Your task to perform on an android device: open app "Google Calendar" (install if not already installed) Image 0: 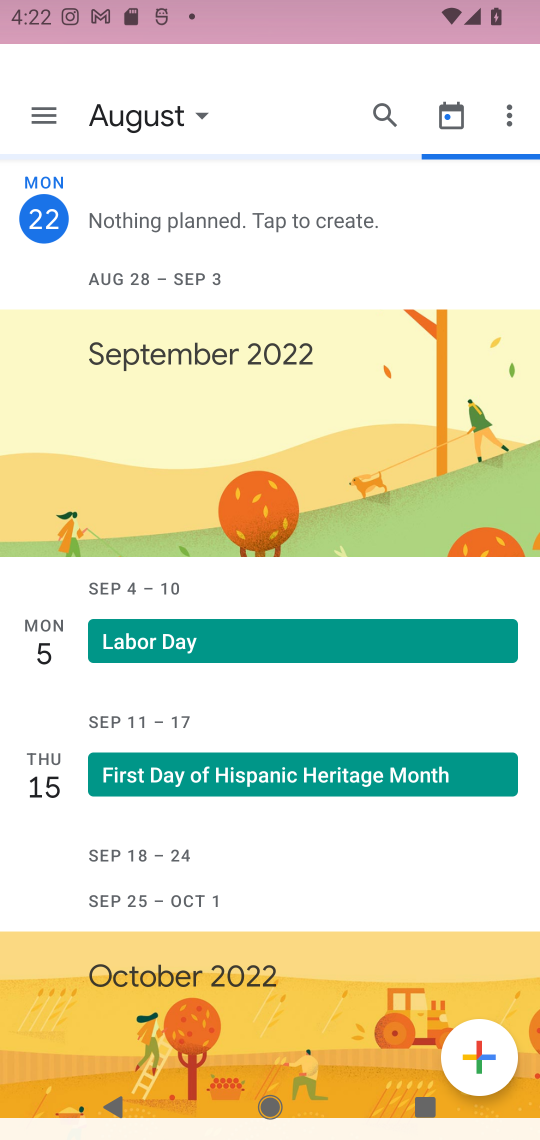
Step 0: press home button
Your task to perform on an android device: open app "Google Calendar" (install if not already installed) Image 1: 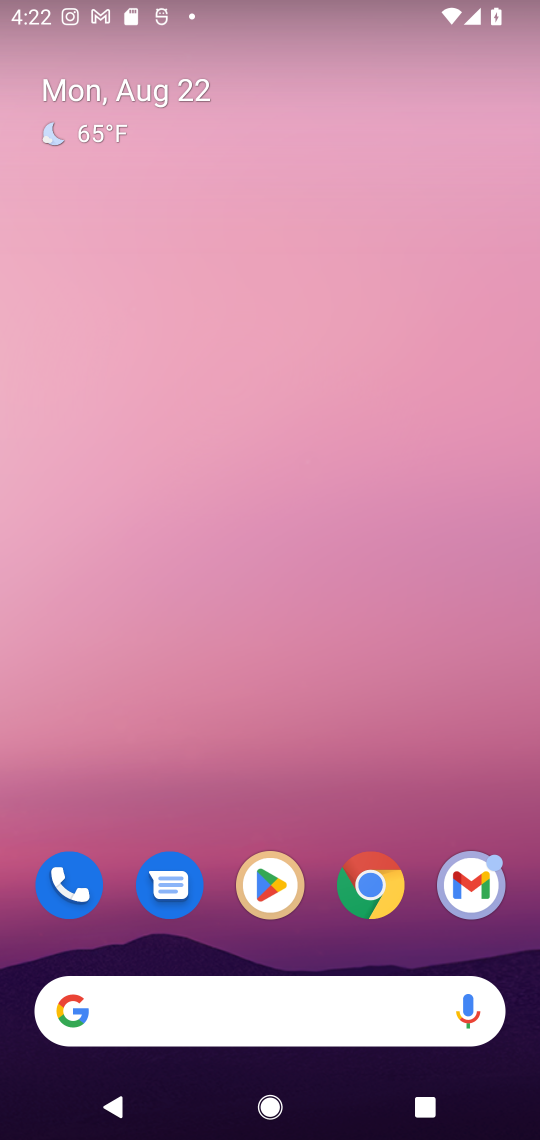
Step 1: click (266, 873)
Your task to perform on an android device: open app "Google Calendar" (install if not already installed) Image 2: 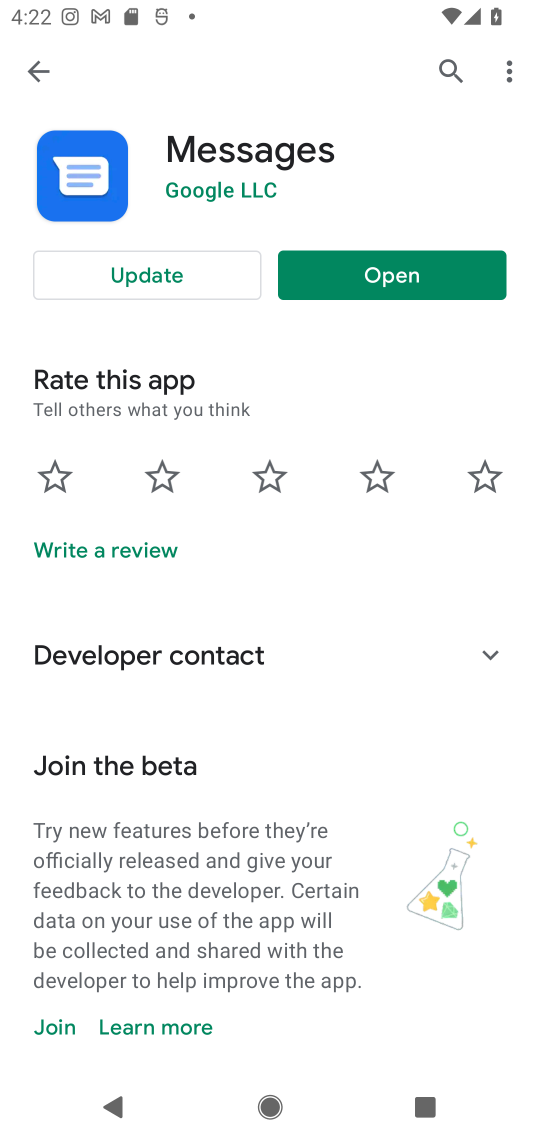
Step 2: click (444, 71)
Your task to perform on an android device: open app "Google Calendar" (install if not already installed) Image 3: 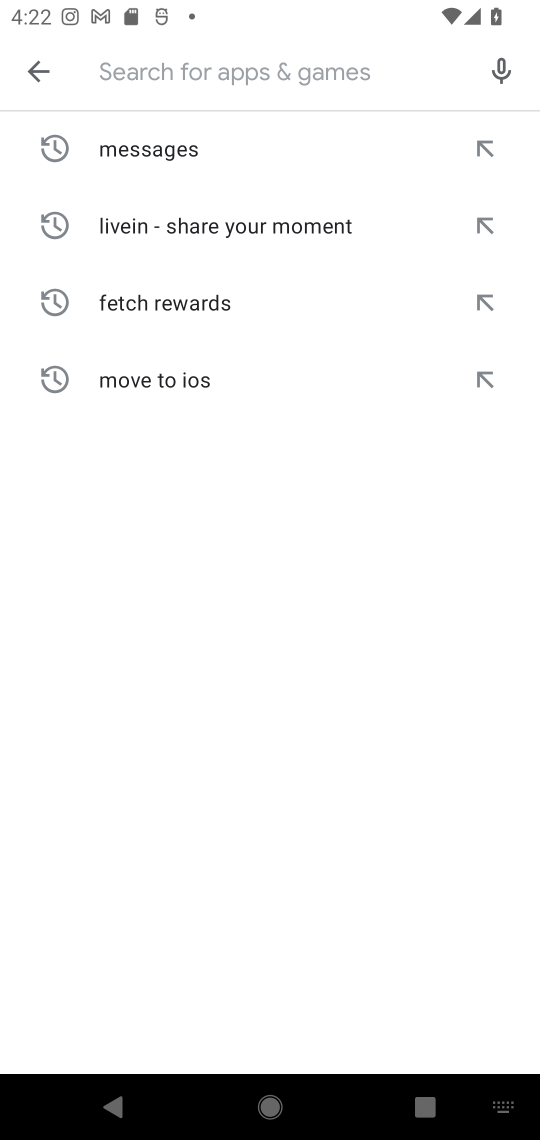
Step 3: type "Google Calendar"
Your task to perform on an android device: open app "Google Calendar" (install if not already installed) Image 4: 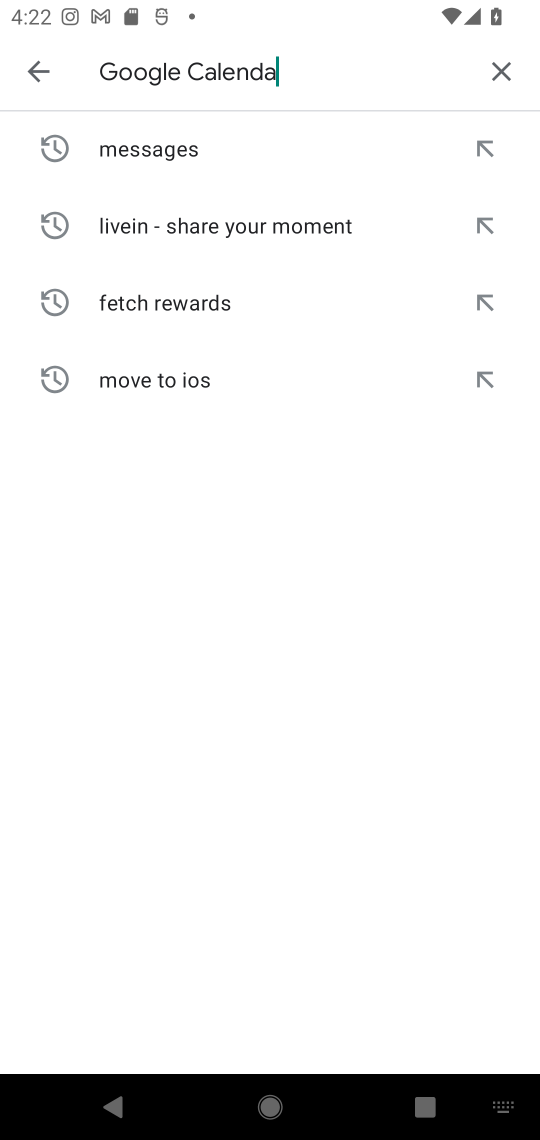
Step 4: type ""
Your task to perform on an android device: open app "Google Calendar" (install if not already installed) Image 5: 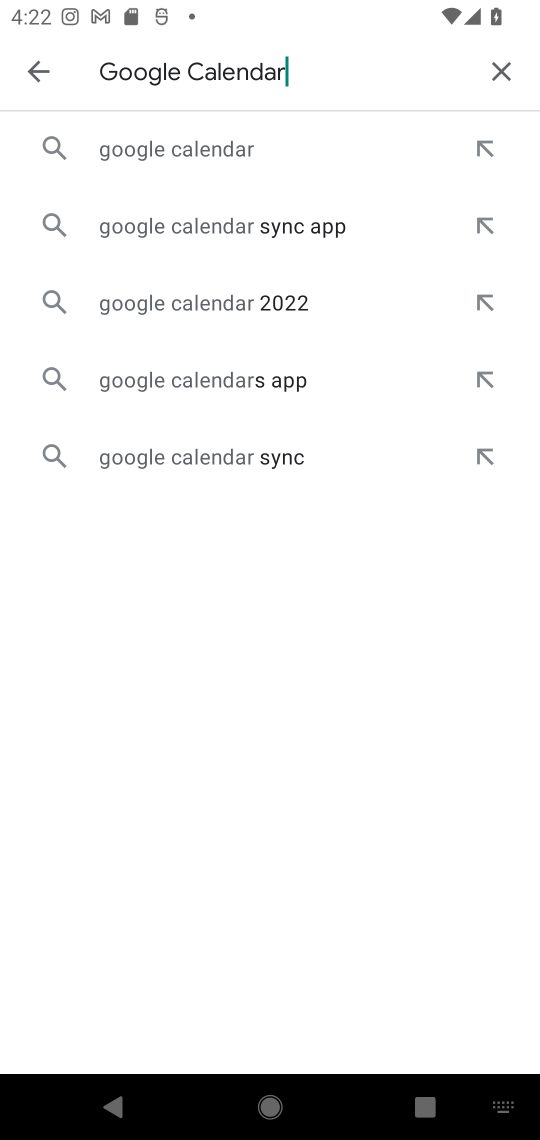
Step 5: click (196, 153)
Your task to perform on an android device: open app "Google Calendar" (install if not already installed) Image 6: 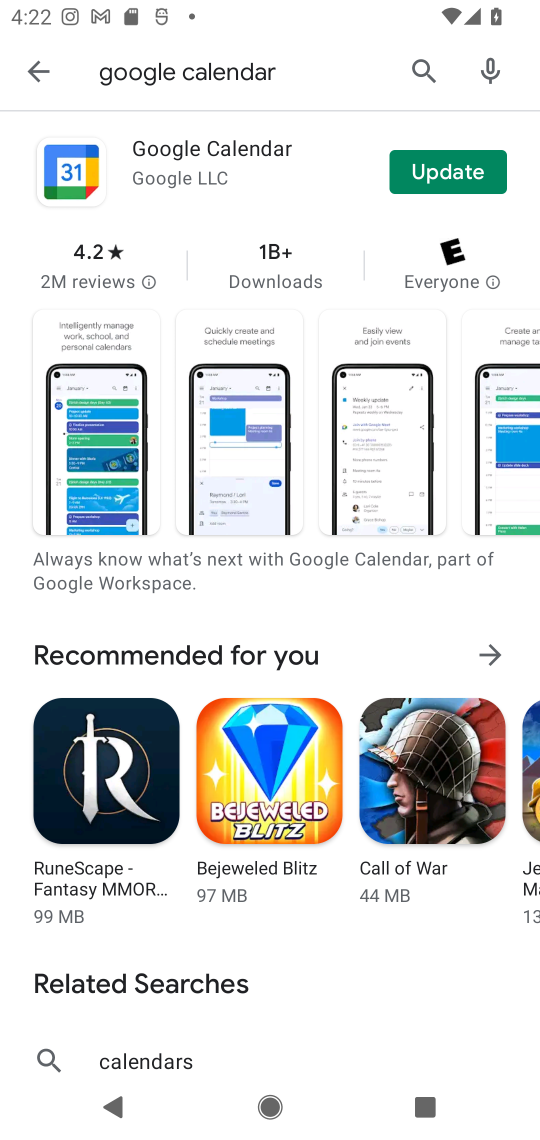
Step 6: click (462, 178)
Your task to perform on an android device: open app "Google Calendar" (install if not already installed) Image 7: 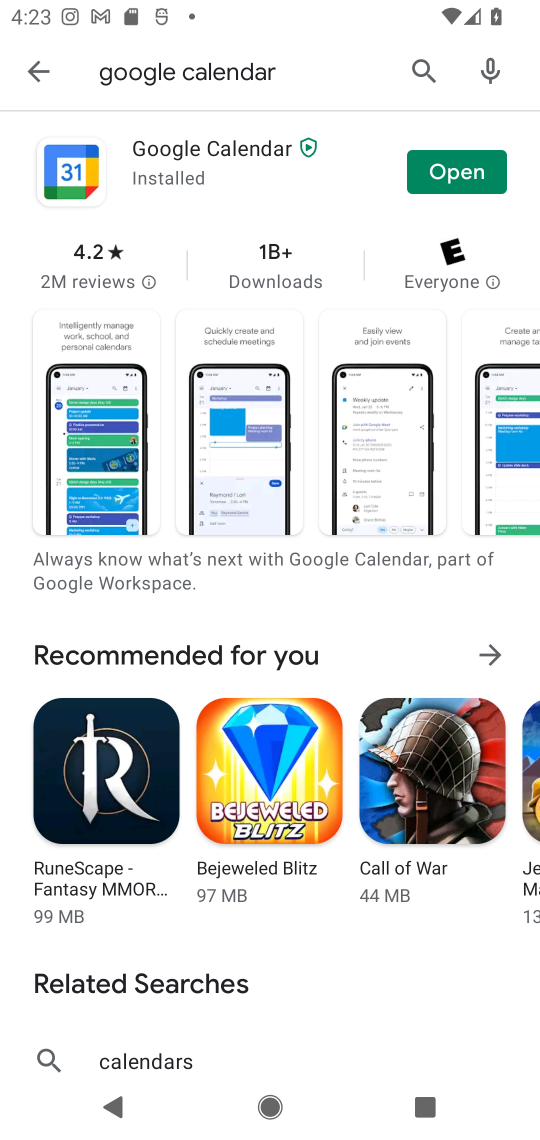
Step 7: click (445, 181)
Your task to perform on an android device: open app "Google Calendar" (install if not already installed) Image 8: 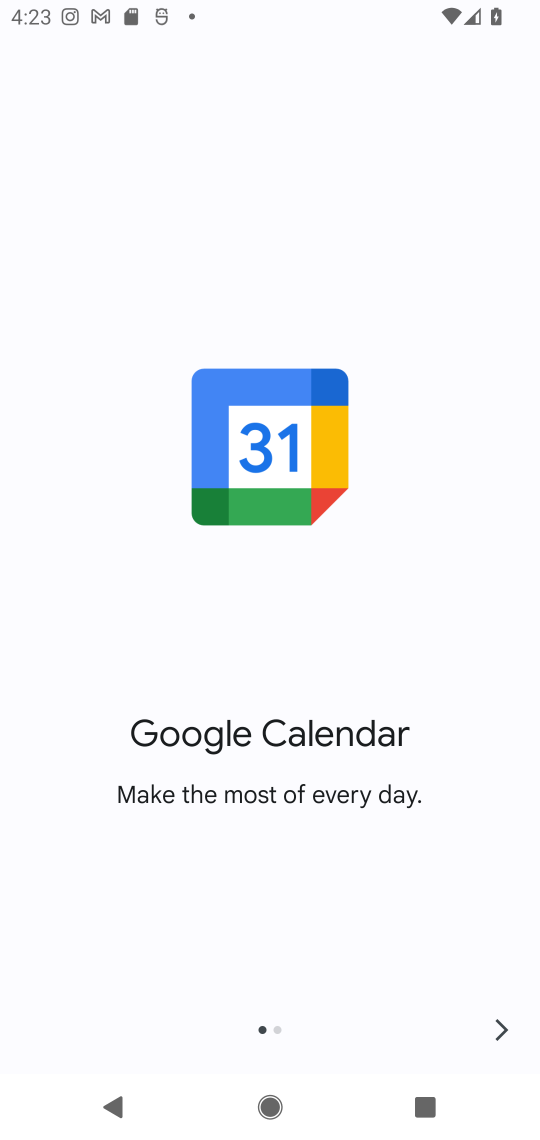
Step 8: click (508, 1034)
Your task to perform on an android device: open app "Google Calendar" (install if not already installed) Image 9: 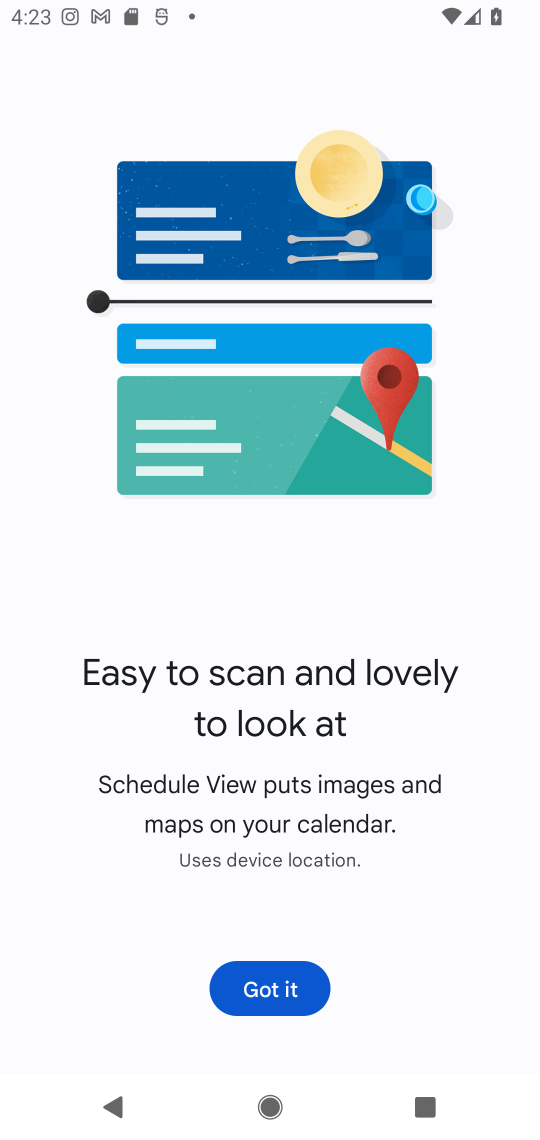
Step 9: click (498, 1022)
Your task to perform on an android device: open app "Google Calendar" (install if not already installed) Image 10: 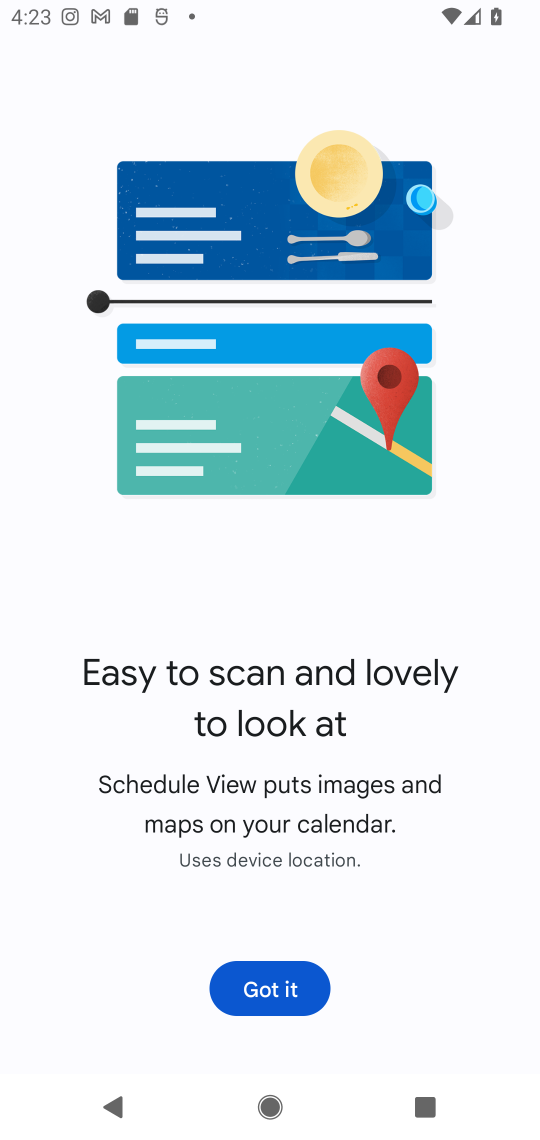
Step 10: click (262, 981)
Your task to perform on an android device: open app "Google Calendar" (install if not already installed) Image 11: 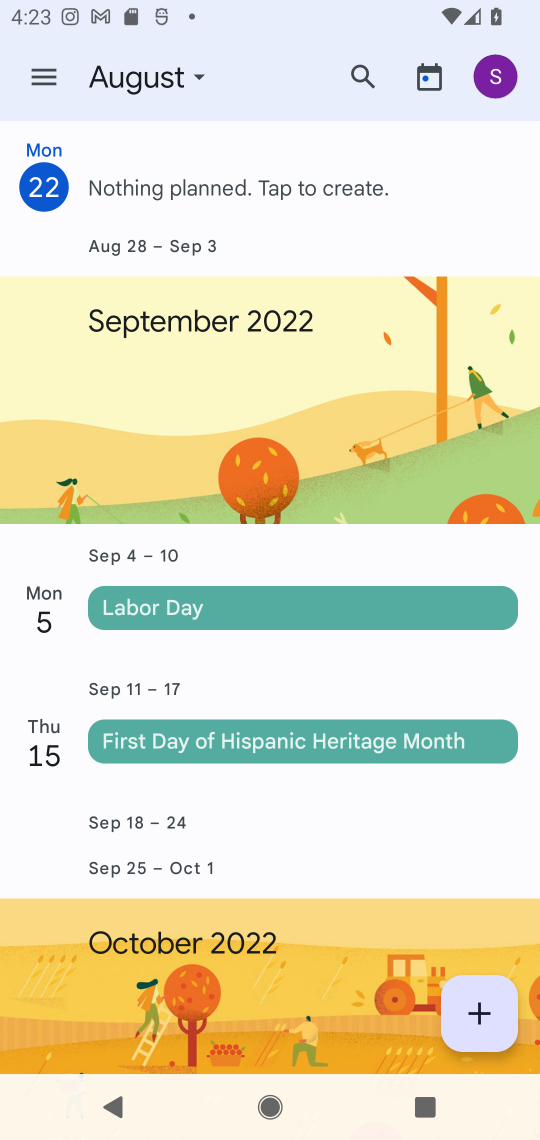
Step 11: task complete